Your task to perform on an android device: Go to CNN.com Image 0: 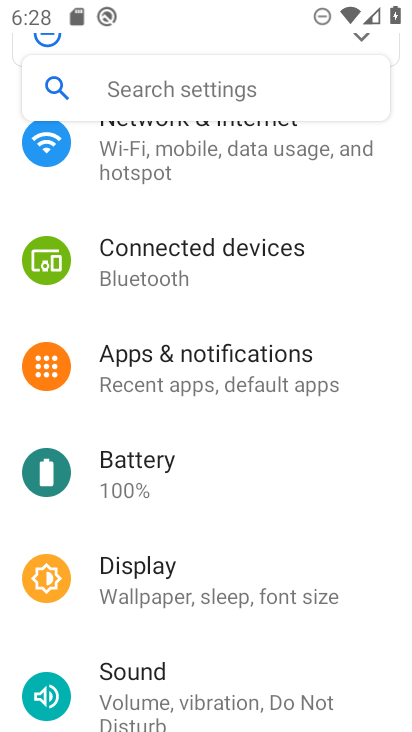
Step 0: press home button
Your task to perform on an android device: Go to CNN.com Image 1: 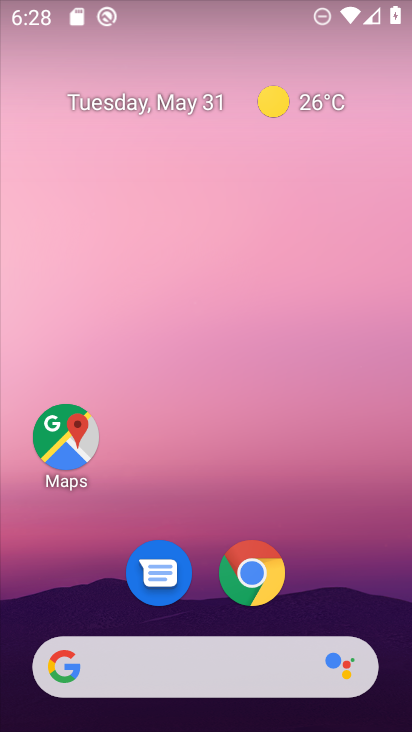
Step 1: drag from (375, 671) to (268, 21)
Your task to perform on an android device: Go to CNN.com Image 2: 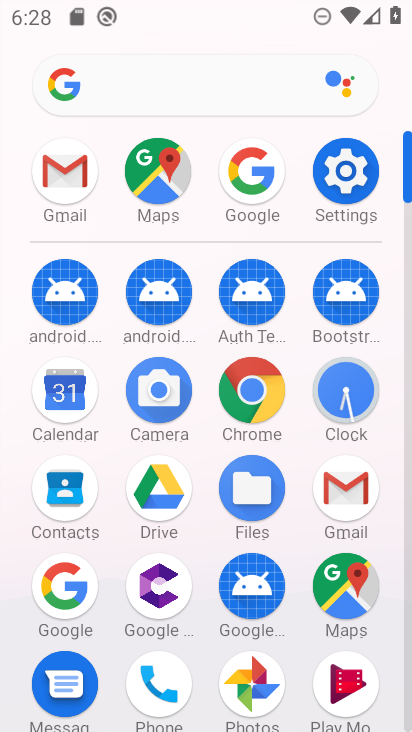
Step 2: click (52, 586)
Your task to perform on an android device: Go to CNN.com Image 3: 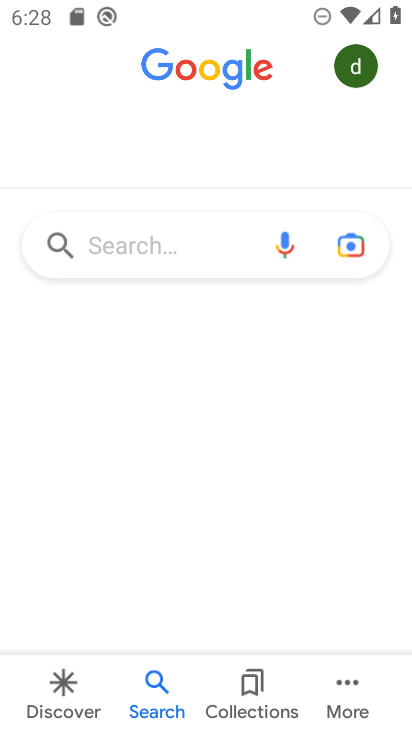
Step 3: click (119, 264)
Your task to perform on an android device: Go to CNN.com Image 4: 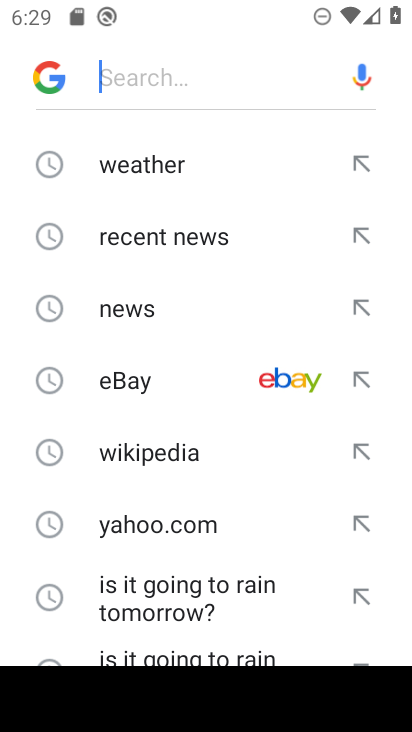
Step 4: drag from (151, 530) to (129, 96)
Your task to perform on an android device: Go to CNN.com Image 5: 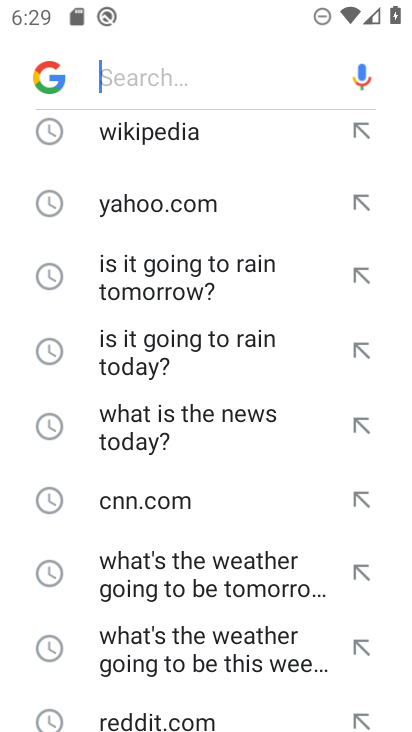
Step 5: click (172, 500)
Your task to perform on an android device: Go to CNN.com Image 6: 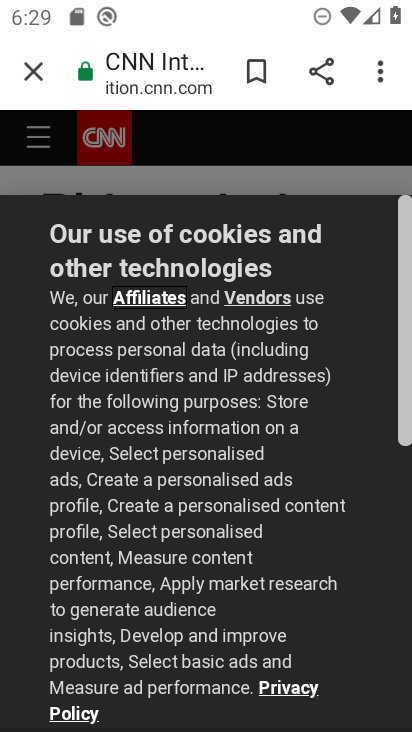
Step 6: task complete